Your task to perform on an android device: Check the news Image 0: 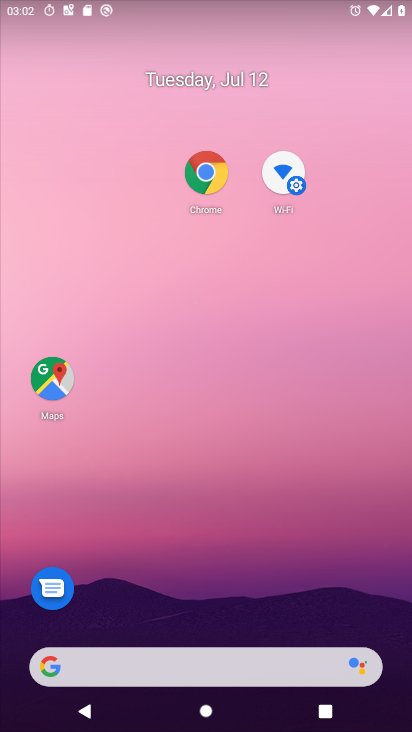
Step 0: click (216, 294)
Your task to perform on an android device: Check the news Image 1: 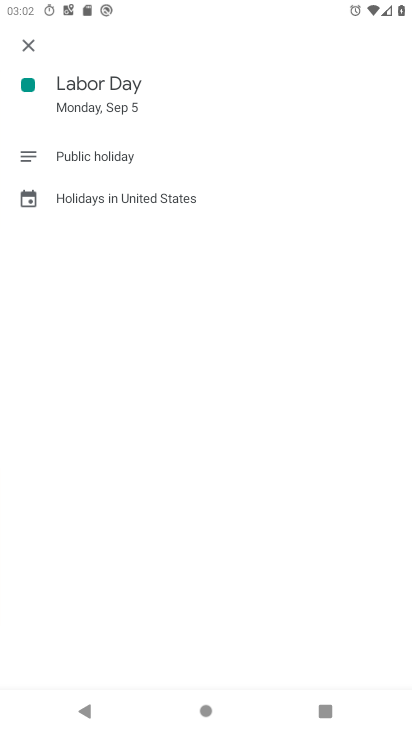
Step 1: press home button
Your task to perform on an android device: Check the news Image 2: 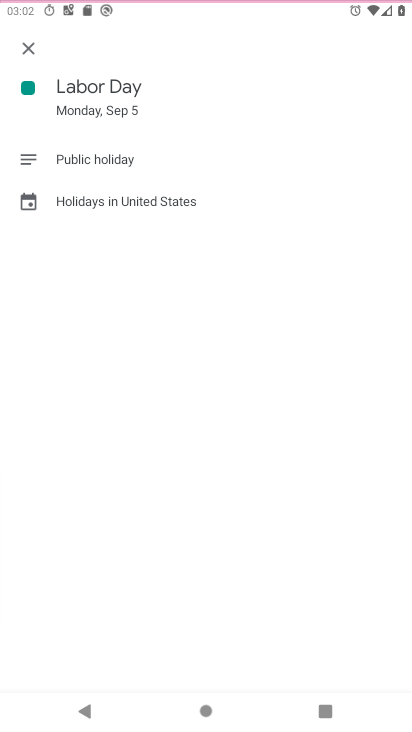
Step 2: drag from (143, 622) to (163, 15)
Your task to perform on an android device: Check the news Image 3: 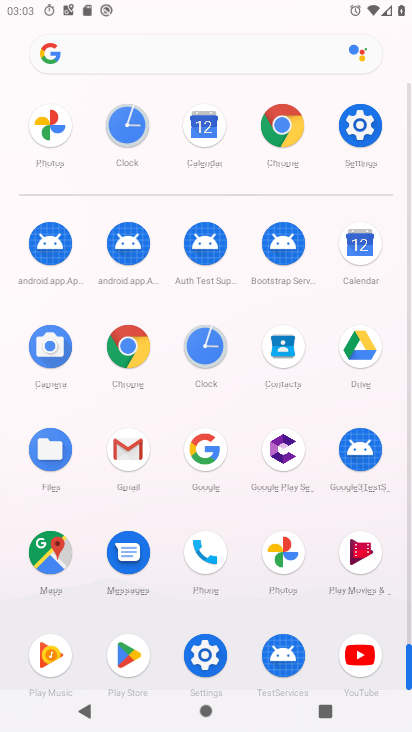
Step 3: click (173, 54)
Your task to perform on an android device: Check the news Image 4: 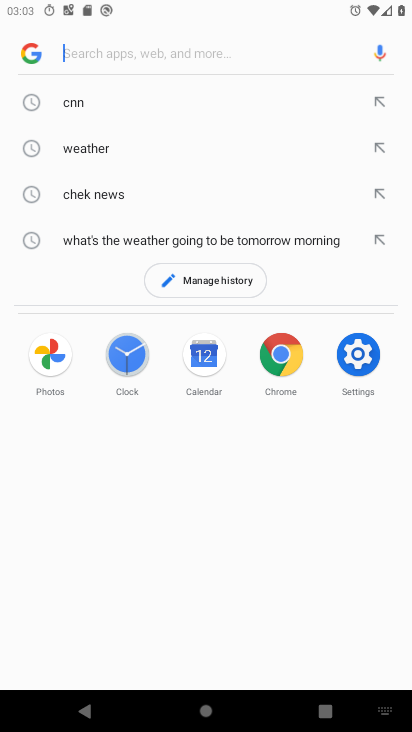
Step 4: type "news"
Your task to perform on an android device: Check the news Image 5: 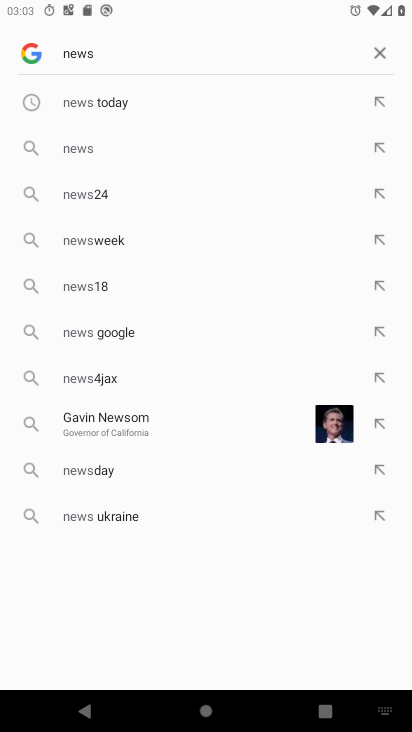
Step 5: click (91, 154)
Your task to perform on an android device: Check the news Image 6: 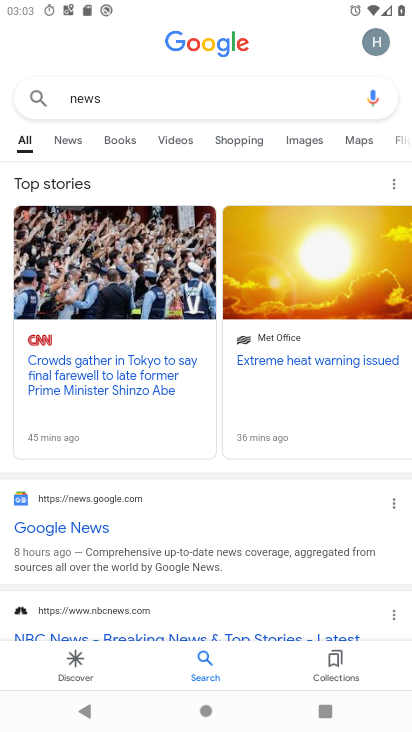
Step 6: task complete